Your task to perform on an android device: turn off translation in the chrome app Image 0: 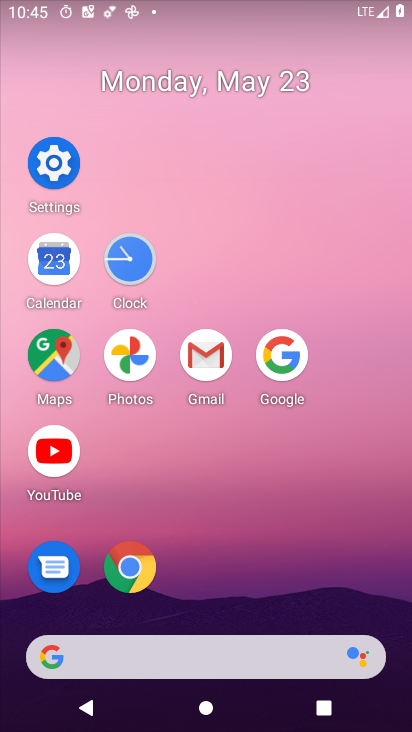
Step 0: click (134, 599)
Your task to perform on an android device: turn off translation in the chrome app Image 1: 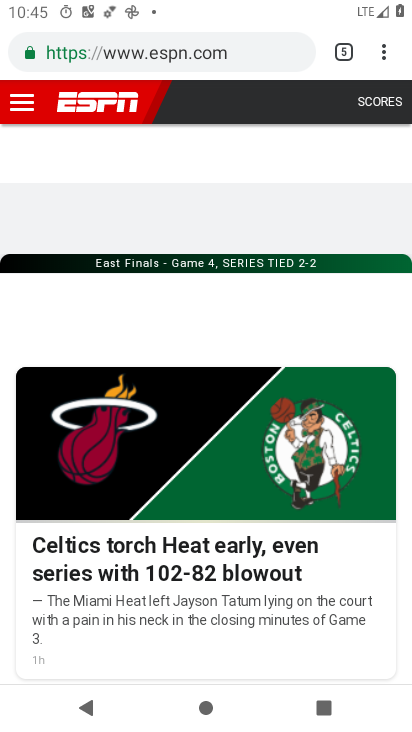
Step 1: click (395, 59)
Your task to perform on an android device: turn off translation in the chrome app Image 2: 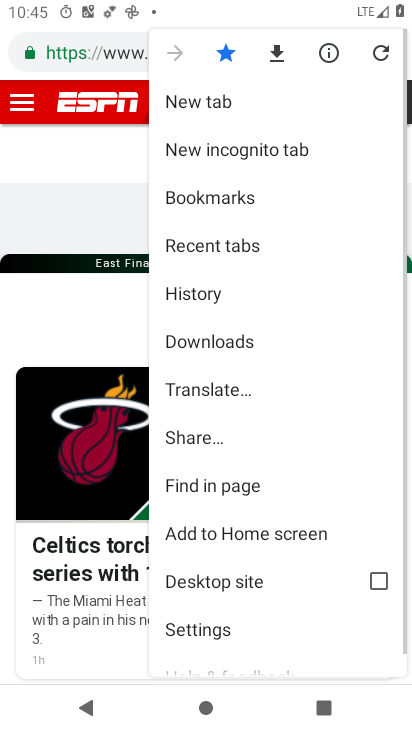
Step 2: click (205, 637)
Your task to perform on an android device: turn off translation in the chrome app Image 3: 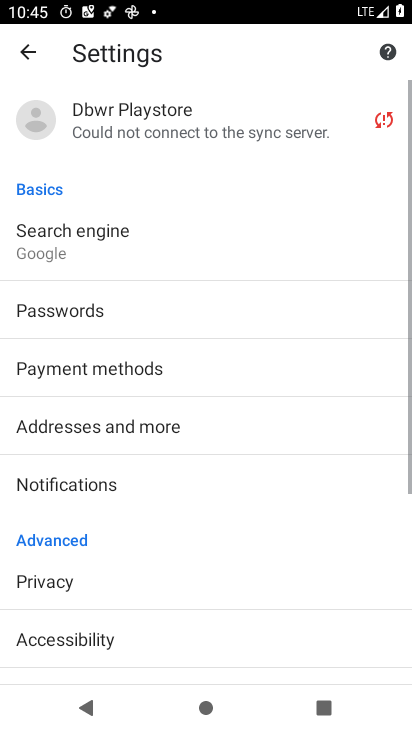
Step 3: drag from (169, 561) to (166, 158)
Your task to perform on an android device: turn off translation in the chrome app Image 4: 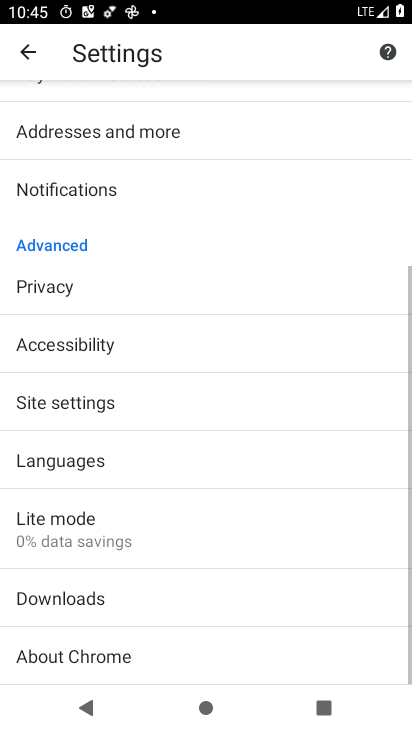
Step 4: click (116, 472)
Your task to perform on an android device: turn off translation in the chrome app Image 5: 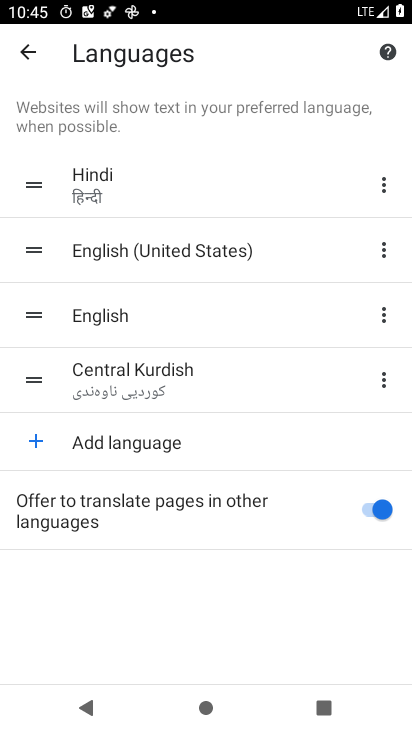
Step 5: click (369, 506)
Your task to perform on an android device: turn off translation in the chrome app Image 6: 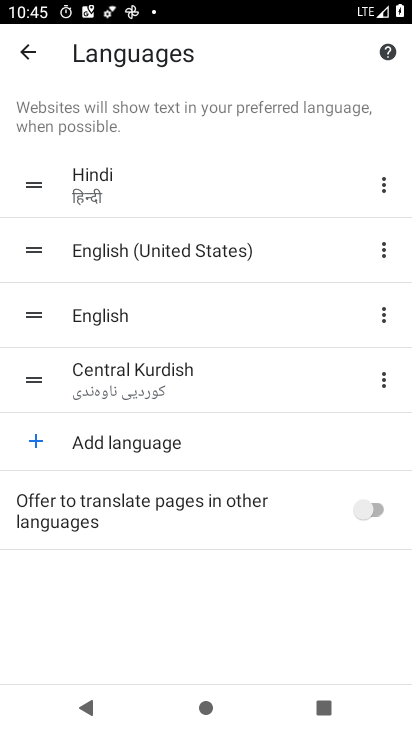
Step 6: task complete